Your task to perform on an android device: open device folders in google photos Image 0: 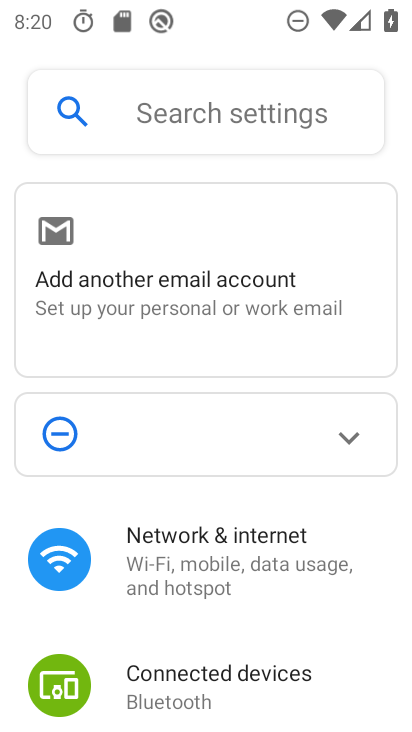
Step 0: press home button
Your task to perform on an android device: open device folders in google photos Image 1: 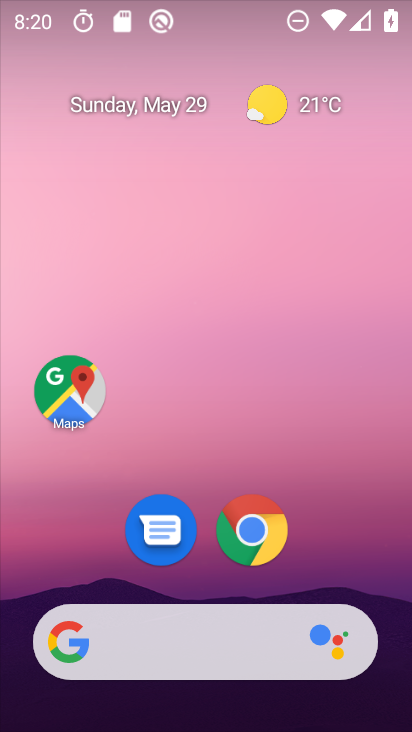
Step 1: drag from (244, 682) to (281, 134)
Your task to perform on an android device: open device folders in google photos Image 2: 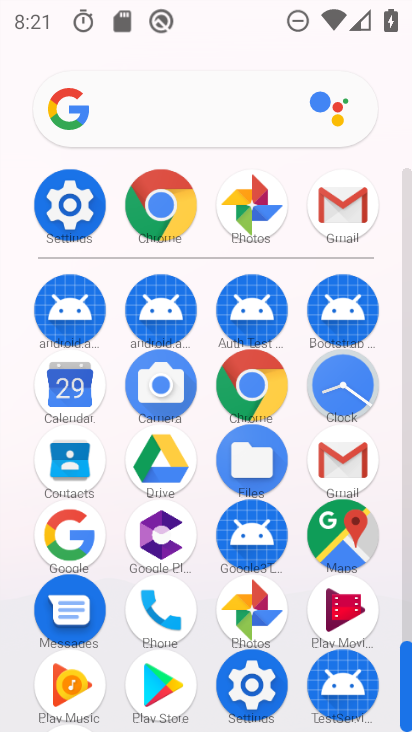
Step 2: click (271, 598)
Your task to perform on an android device: open device folders in google photos Image 3: 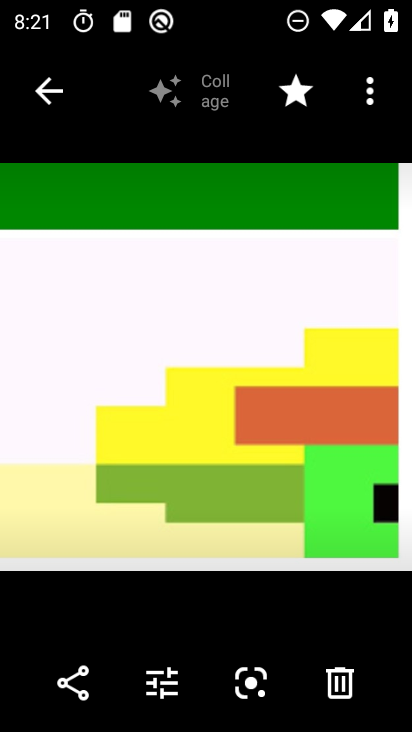
Step 3: click (34, 89)
Your task to perform on an android device: open device folders in google photos Image 4: 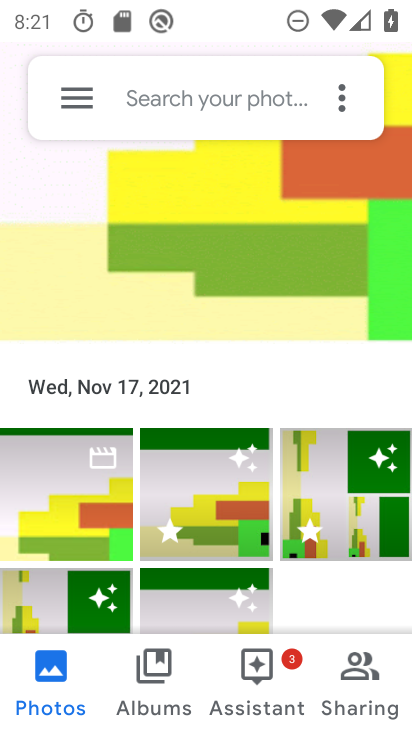
Step 4: click (76, 100)
Your task to perform on an android device: open device folders in google photos Image 5: 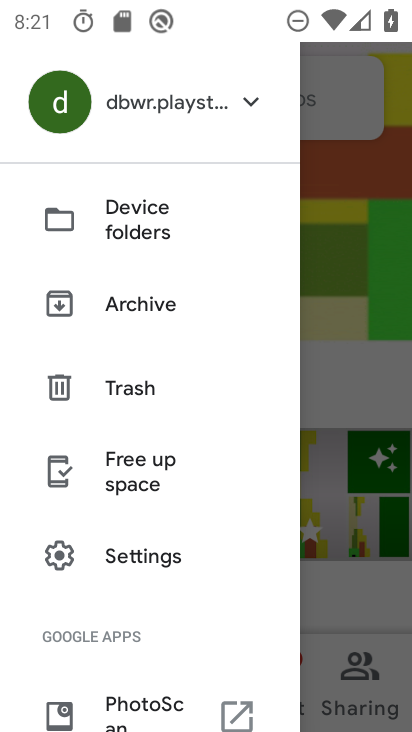
Step 5: click (137, 213)
Your task to perform on an android device: open device folders in google photos Image 6: 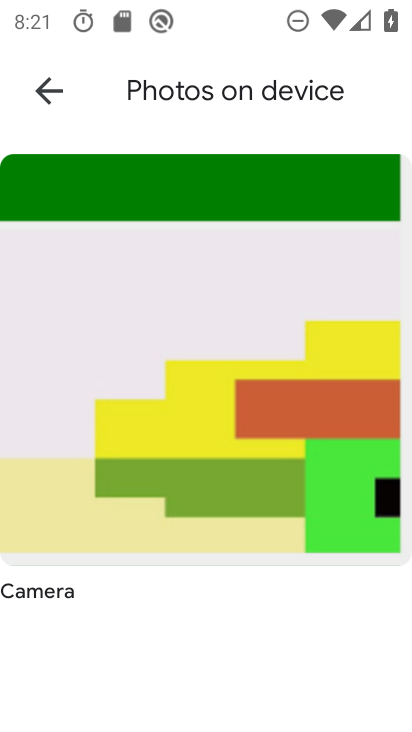
Step 6: task complete